Your task to perform on an android device: Open my contact list Image 0: 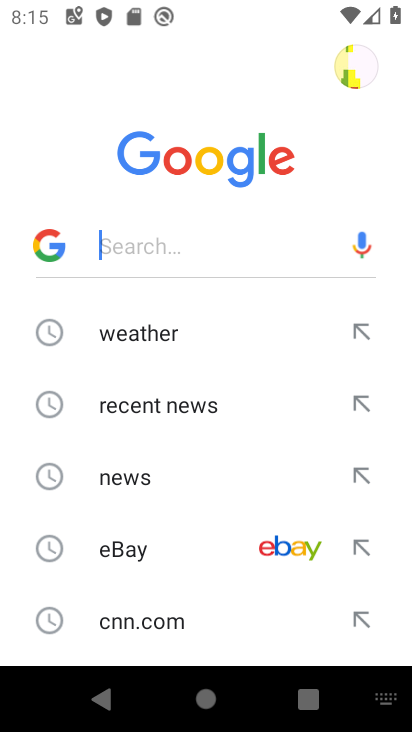
Step 0: press home button
Your task to perform on an android device: Open my contact list Image 1: 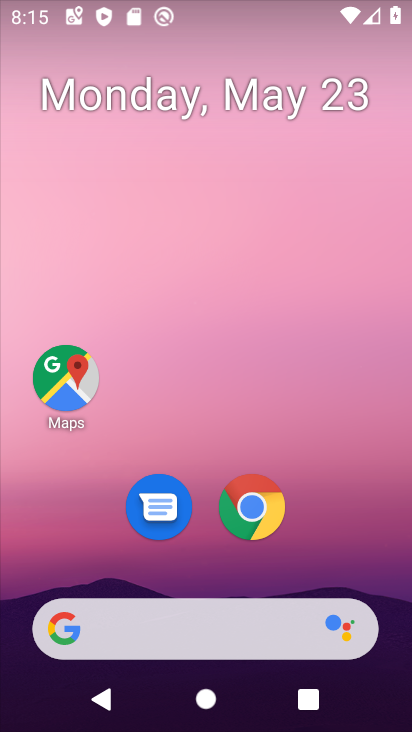
Step 1: drag from (313, 523) to (301, 38)
Your task to perform on an android device: Open my contact list Image 2: 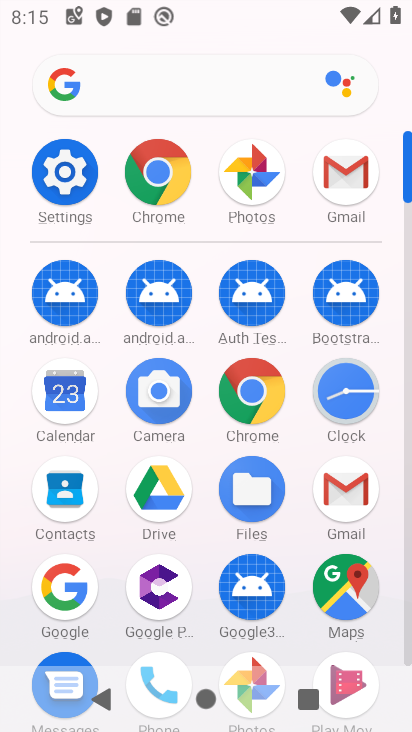
Step 2: click (62, 497)
Your task to perform on an android device: Open my contact list Image 3: 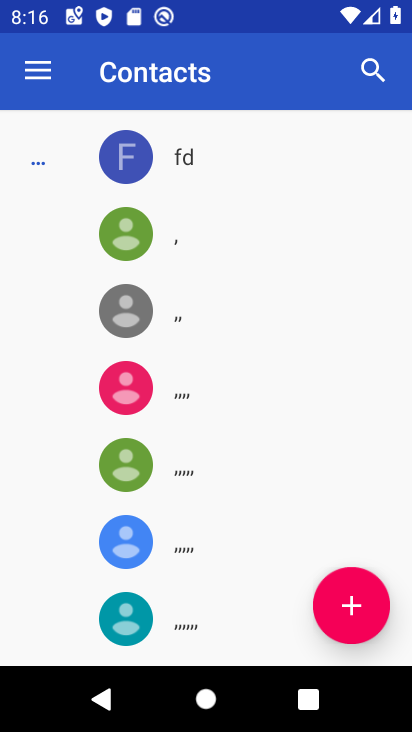
Step 3: task complete